Your task to perform on an android device: set an alarm Image 0: 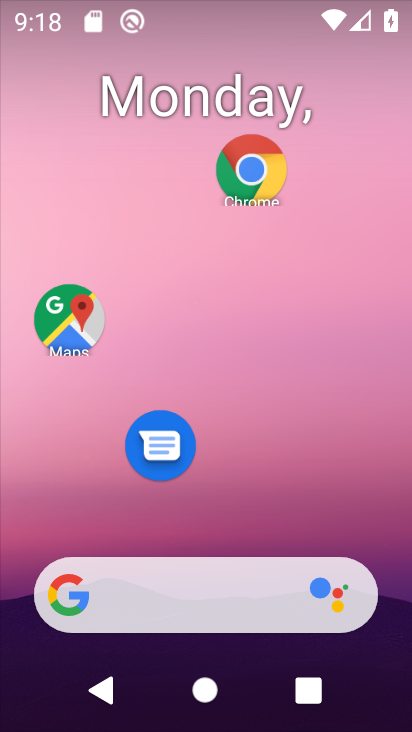
Step 0: press home button
Your task to perform on an android device: set an alarm Image 1: 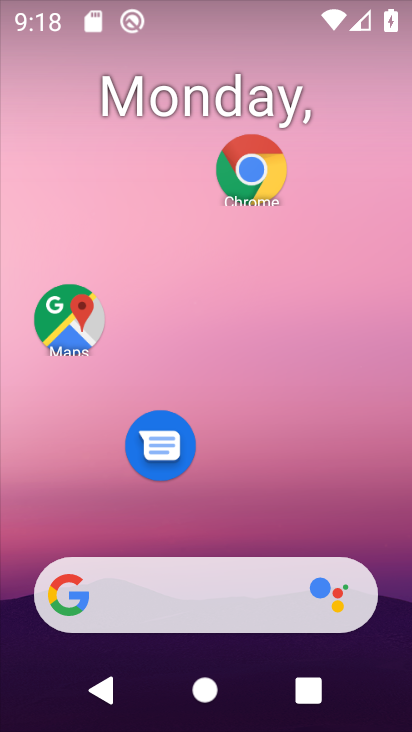
Step 1: drag from (211, 527) to (238, 9)
Your task to perform on an android device: set an alarm Image 2: 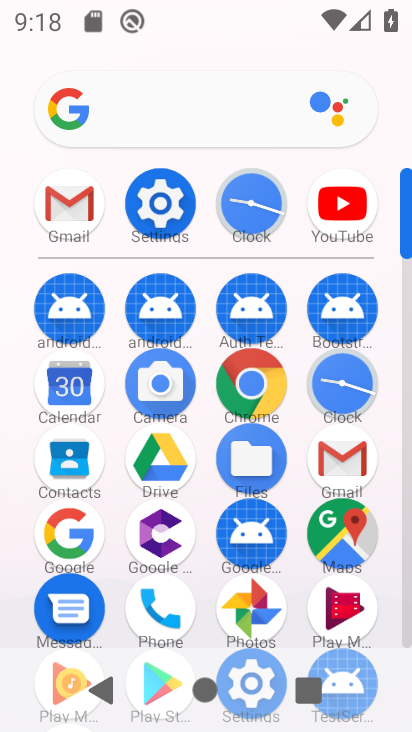
Step 2: click (249, 195)
Your task to perform on an android device: set an alarm Image 3: 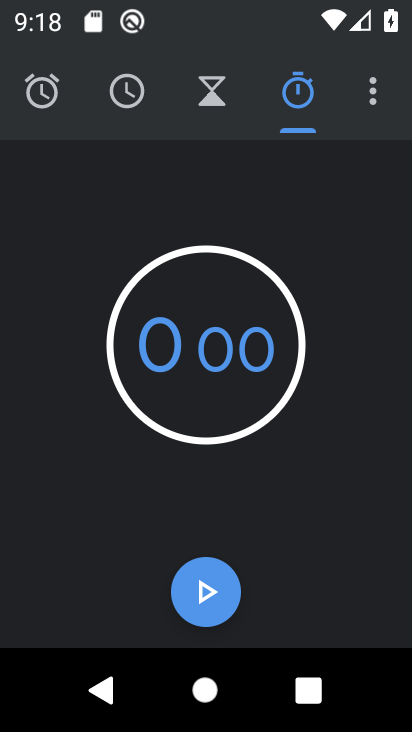
Step 3: click (41, 84)
Your task to perform on an android device: set an alarm Image 4: 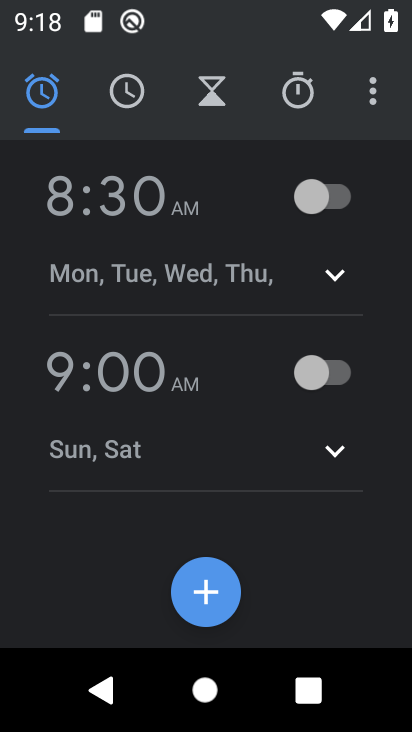
Step 4: click (332, 197)
Your task to perform on an android device: set an alarm Image 5: 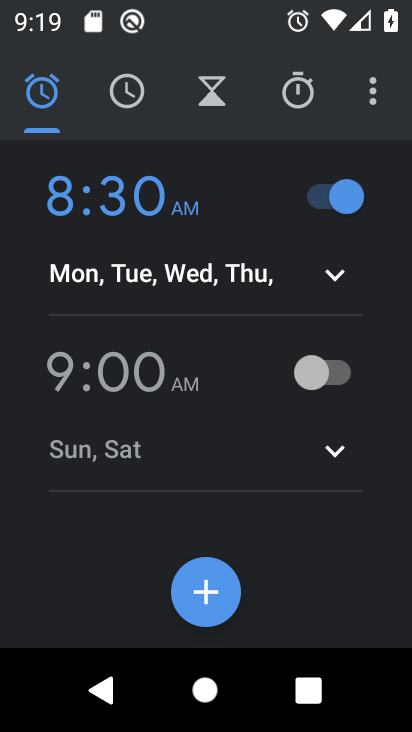
Step 5: task complete